Your task to perform on an android device: turn pop-ups on in chrome Image 0: 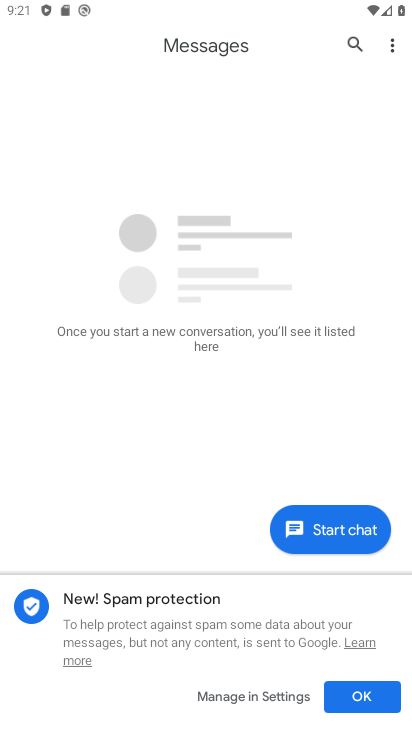
Step 0: click (384, 633)
Your task to perform on an android device: turn pop-ups on in chrome Image 1: 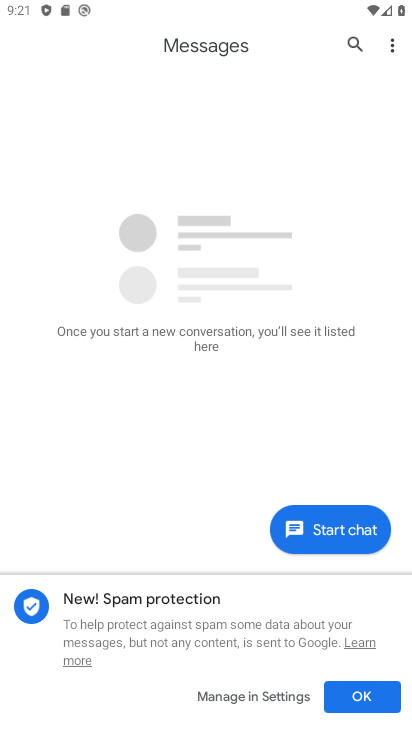
Step 1: press home button
Your task to perform on an android device: turn pop-ups on in chrome Image 2: 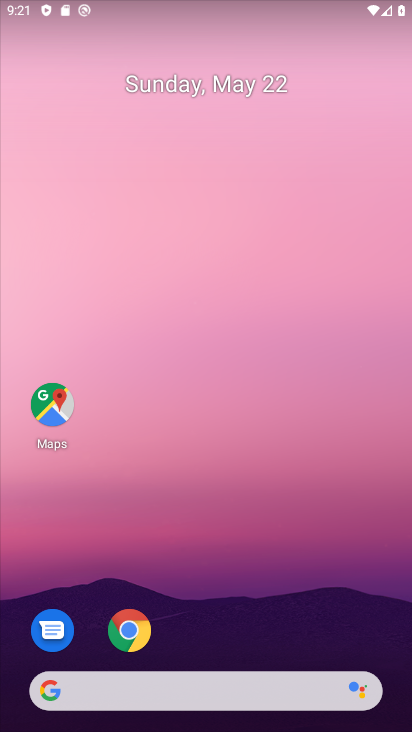
Step 2: drag from (336, 616) to (372, 127)
Your task to perform on an android device: turn pop-ups on in chrome Image 3: 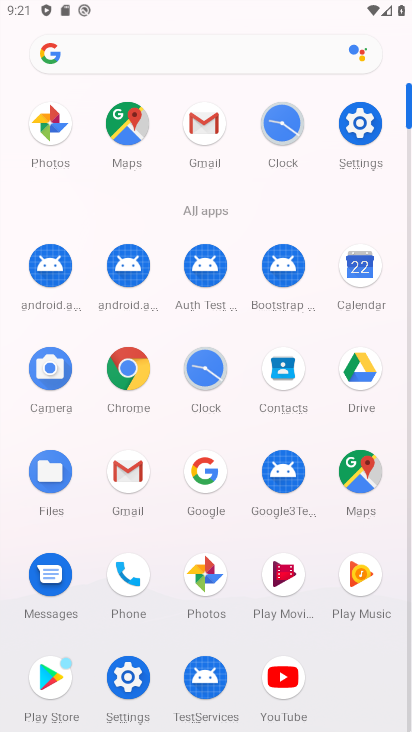
Step 3: click (138, 376)
Your task to perform on an android device: turn pop-ups on in chrome Image 4: 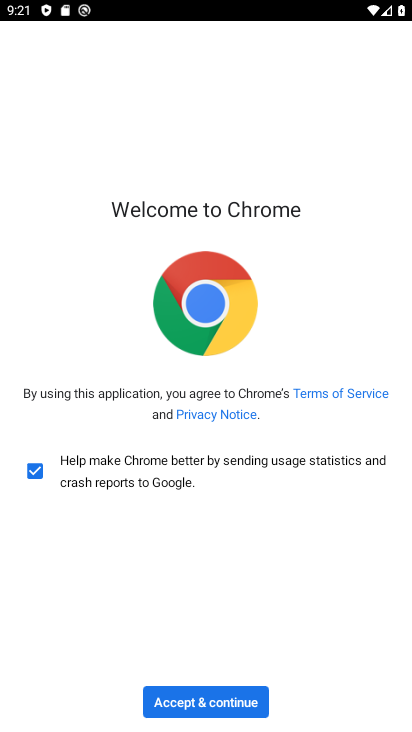
Step 4: click (168, 693)
Your task to perform on an android device: turn pop-ups on in chrome Image 5: 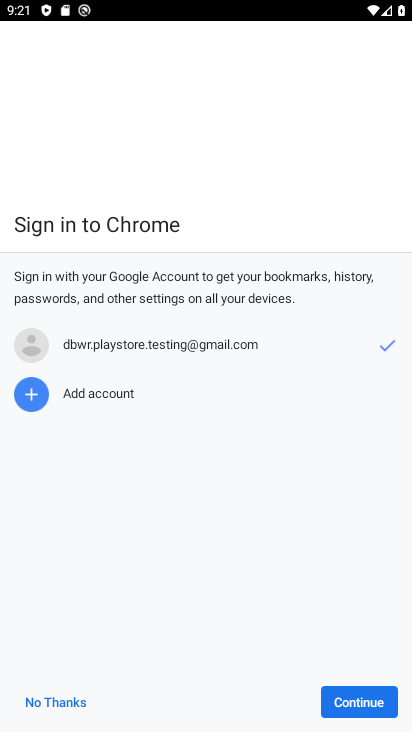
Step 5: click (344, 706)
Your task to perform on an android device: turn pop-ups on in chrome Image 6: 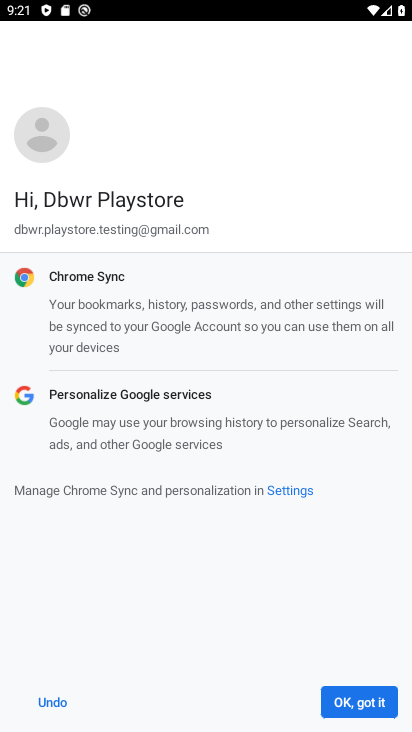
Step 6: click (346, 701)
Your task to perform on an android device: turn pop-ups on in chrome Image 7: 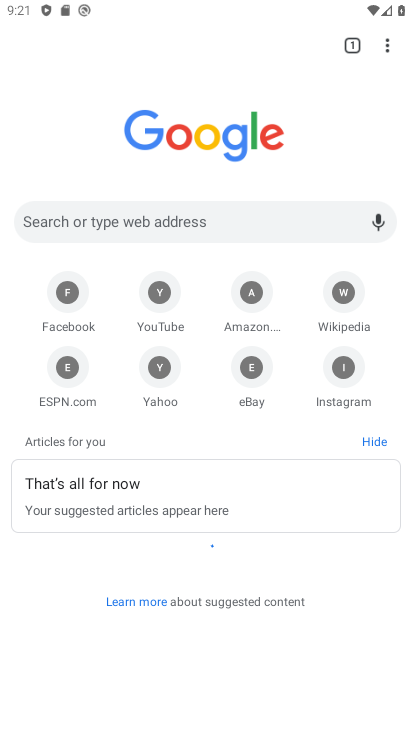
Step 7: click (387, 48)
Your task to perform on an android device: turn pop-ups on in chrome Image 8: 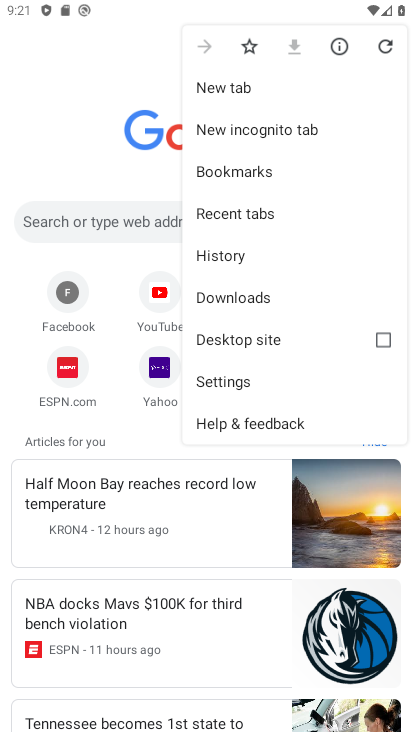
Step 8: click (214, 378)
Your task to perform on an android device: turn pop-ups on in chrome Image 9: 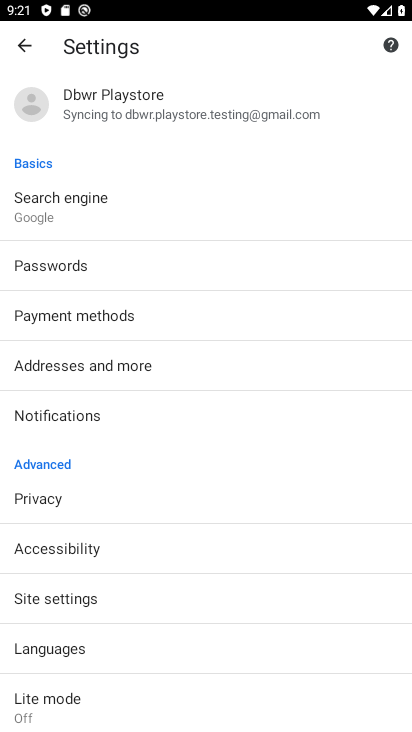
Step 9: drag from (248, 581) to (245, 483)
Your task to perform on an android device: turn pop-ups on in chrome Image 10: 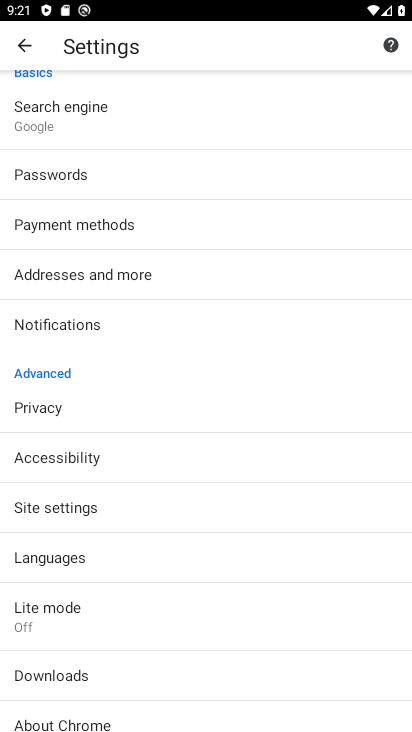
Step 10: drag from (245, 619) to (247, 564)
Your task to perform on an android device: turn pop-ups on in chrome Image 11: 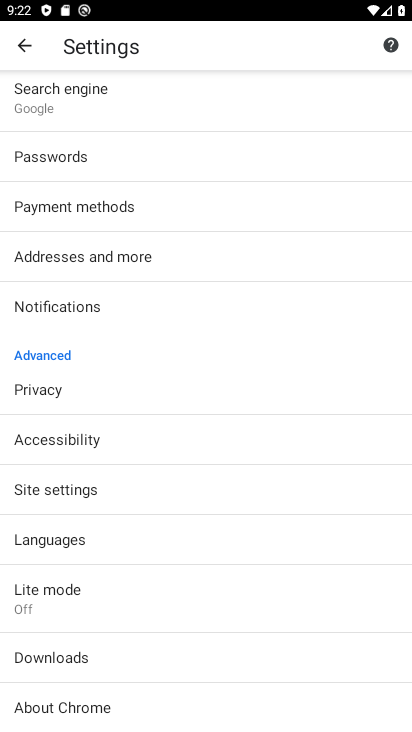
Step 11: drag from (243, 624) to (238, 517)
Your task to perform on an android device: turn pop-ups on in chrome Image 12: 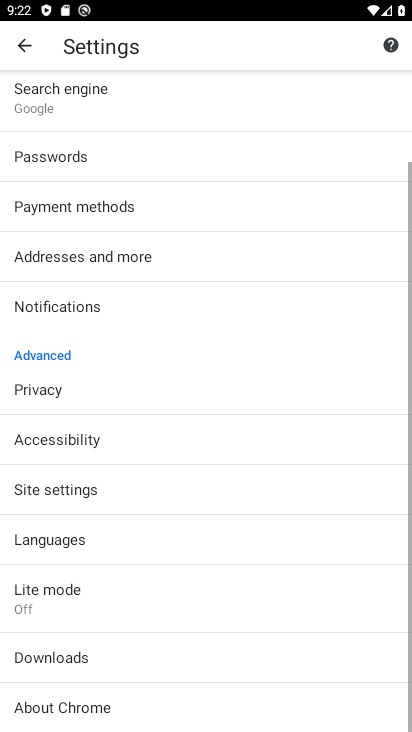
Step 12: click (229, 479)
Your task to perform on an android device: turn pop-ups on in chrome Image 13: 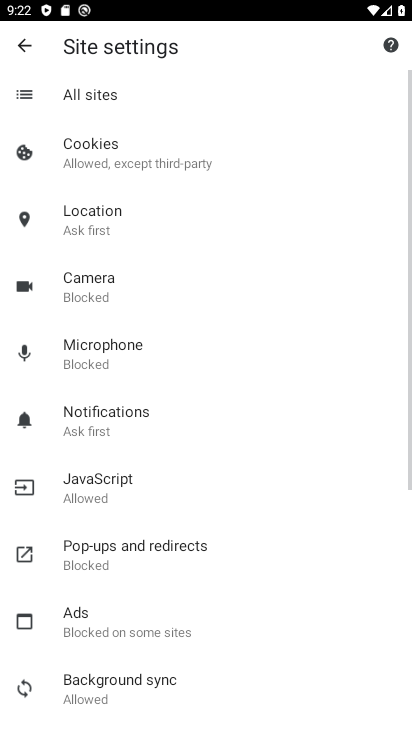
Step 13: drag from (267, 598) to (262, 519)
Your task to perform on an android device: turn pop-ups on in chrome Image 14: 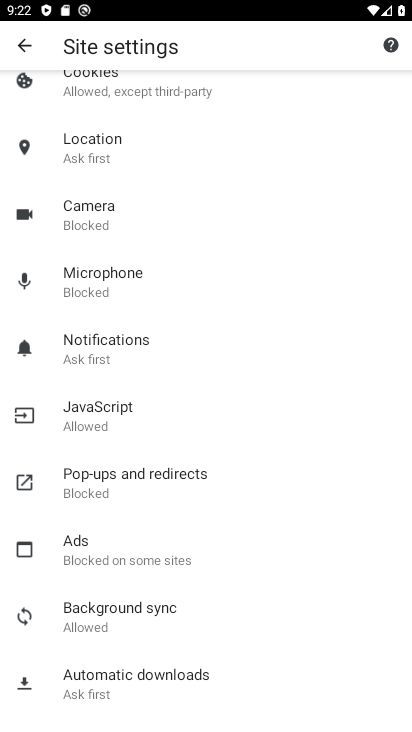
Step 14: drag from (265, 618) to (273, 553)
Your task to perform on an android device: turn pop-ups on in chrome Image 15: 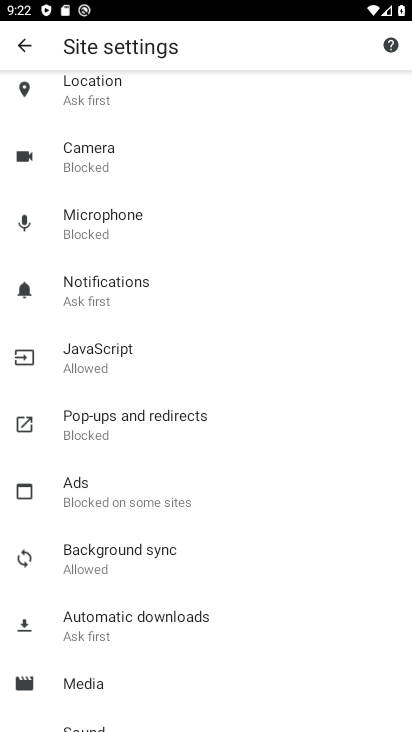
Step 15: drag from (269, 639) to (270, 580)
Your task to perform on an android device: turn pop-ups on in chrome Image 16: 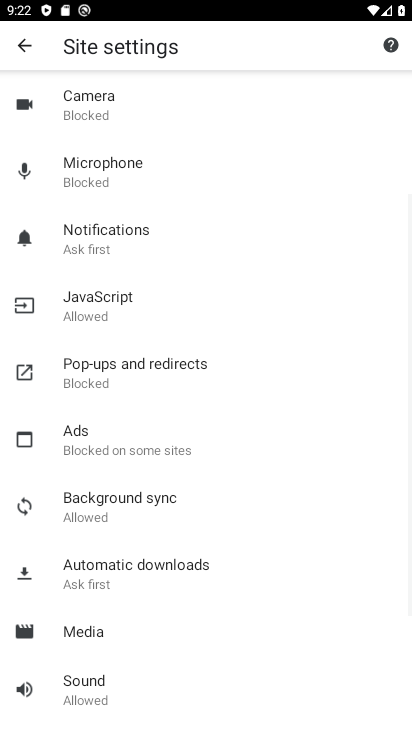
Step 16: click (264, 638)
Your task to perform on an android device: turn pop-ups on in chrome Image 17: 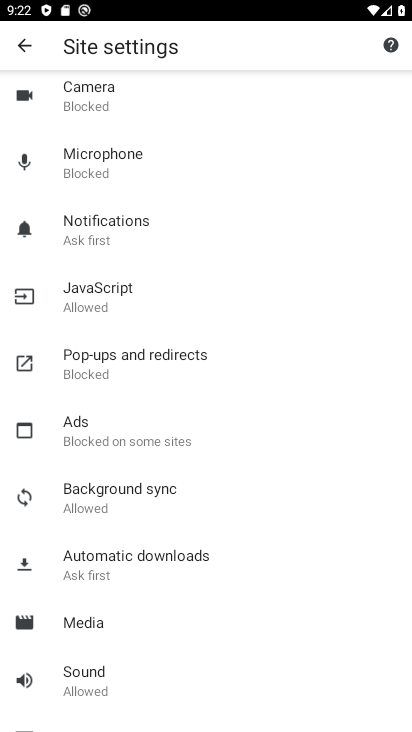
Step 17: drag from (266, 621) to (270, 564)
Your task to perform on an android device: turn pop-ups on in chrome Image 18: 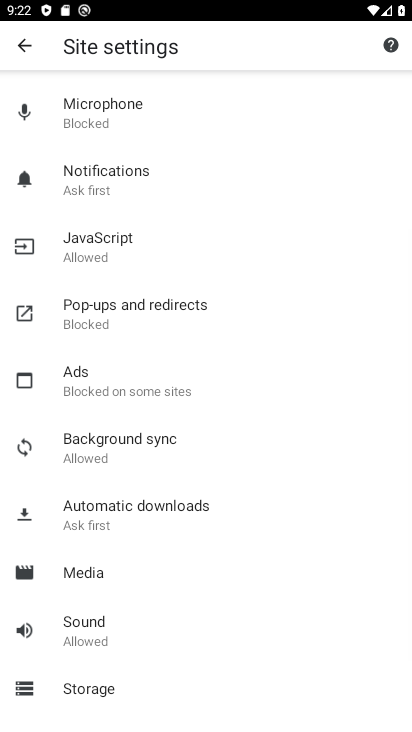
Step 18: drag from (273, 611) to (281, 549)
Your task to perform on an android device: turn pop-ups on in chrome Image 19: 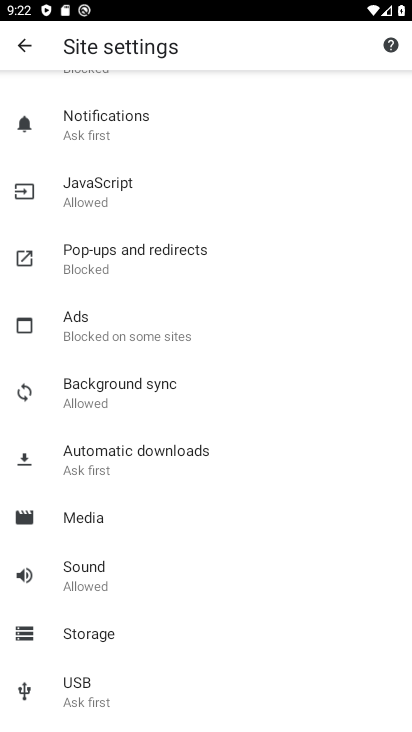
Step 19: drag from (282, 626) to (285, 553)
Your task to perform on an android device: turn pop-ups on in chrome Image 20: 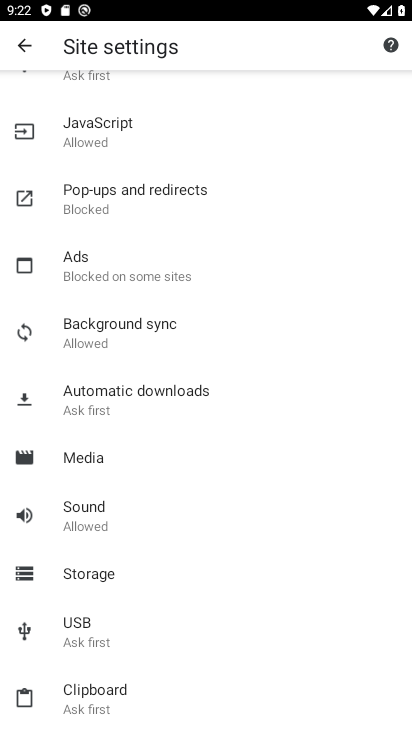
Step 20: drag from (320, 451) to (308, 547)
Your task to perform on an android device: turn pop-ups on in chrome Image 21: 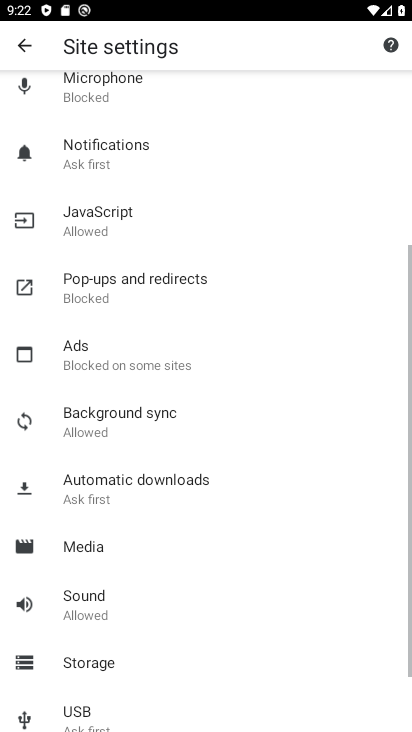
Step 21: drag from (319, 411) to (323, 503)
Your task to perform on an android device: turn pop-ups on in chrome Image 22: 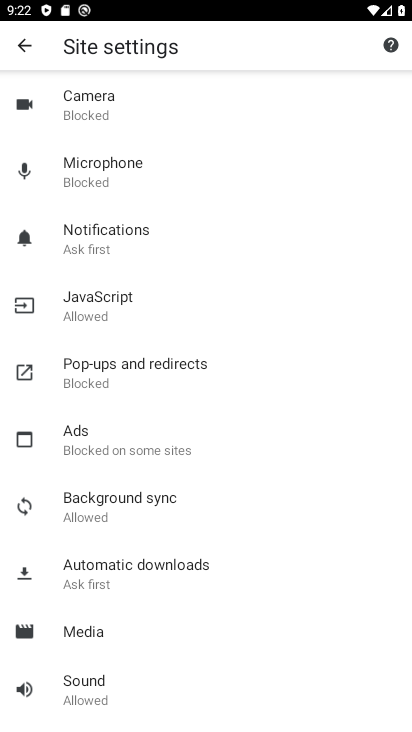
Step 22: drag from (325, 429) to (334, 504)
Your task to perform on an android device: turn pop-ups on in chrome Image 23: 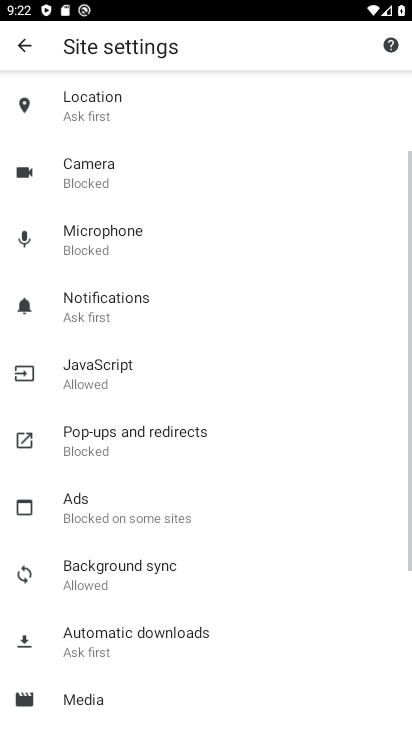
Step 23: drag from (334, 416) to (336, 485)
Your task to perform on an android device: turn pop-ups on in chrome Image 24: 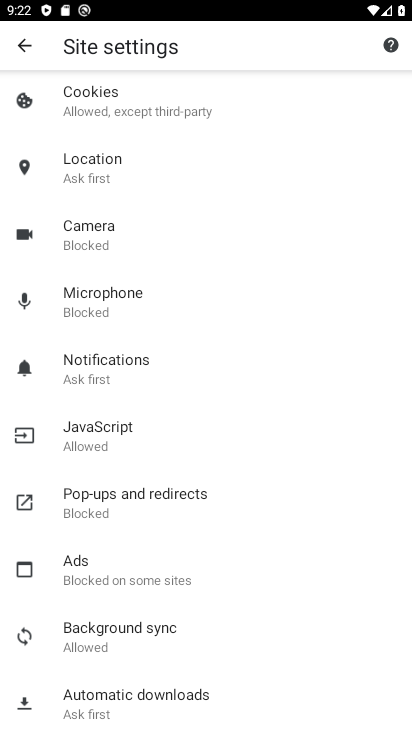
Step 24: click (186, 492)
Your task to perform on an android device: turn pop-ups on in chrome Image 25: 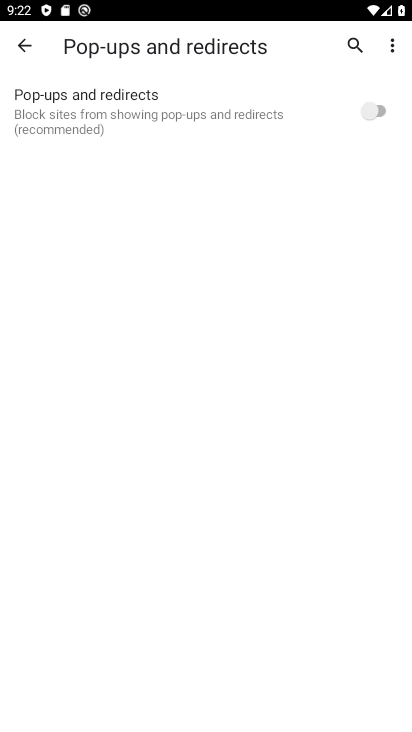
Step 25: click (365, 114)
Your task to perform on an android device: turn pop-ups on in chrome Image 26: 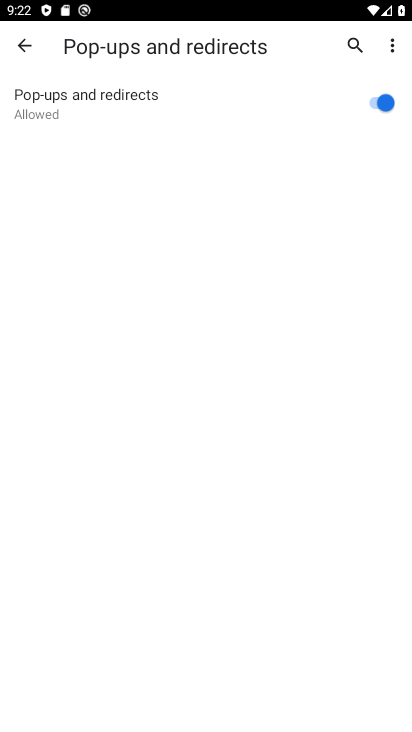
Step 26: task complete